Your task to perform on an android device: turn notification dots on Image 0: 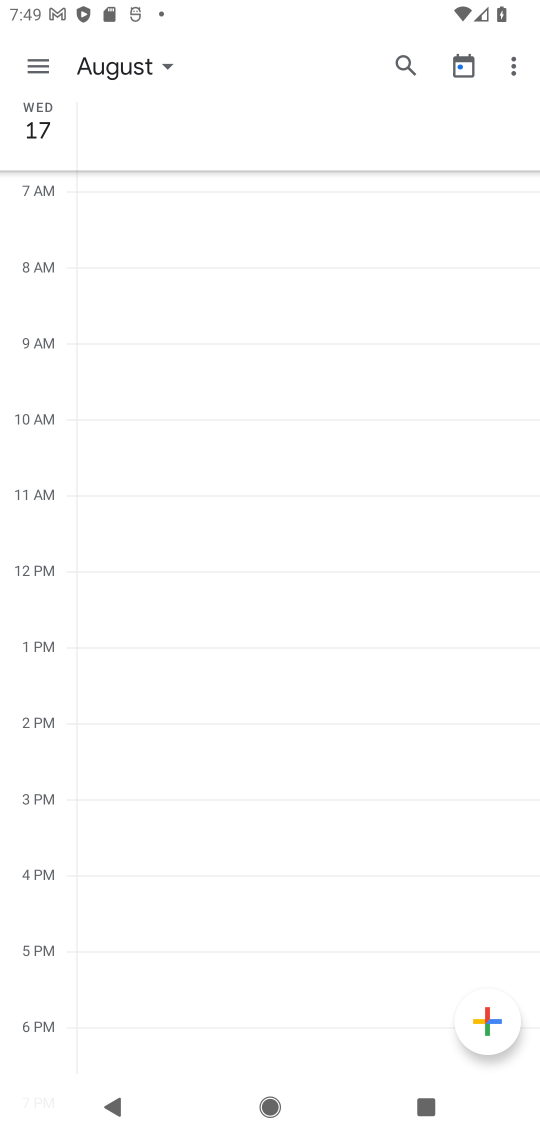
Step 0: press home button
Your task to perform on an android device: turn notification dots on Image 1: 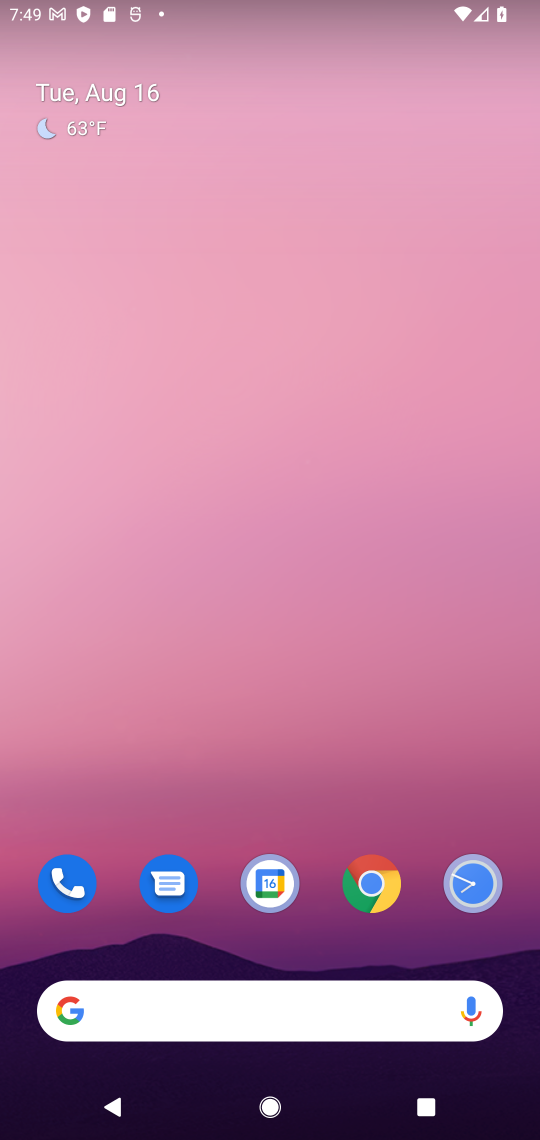
Step 1: drag from (428, 821) to (386, 147)
Your task to perform on an android device: turn notification dots on Image 2: 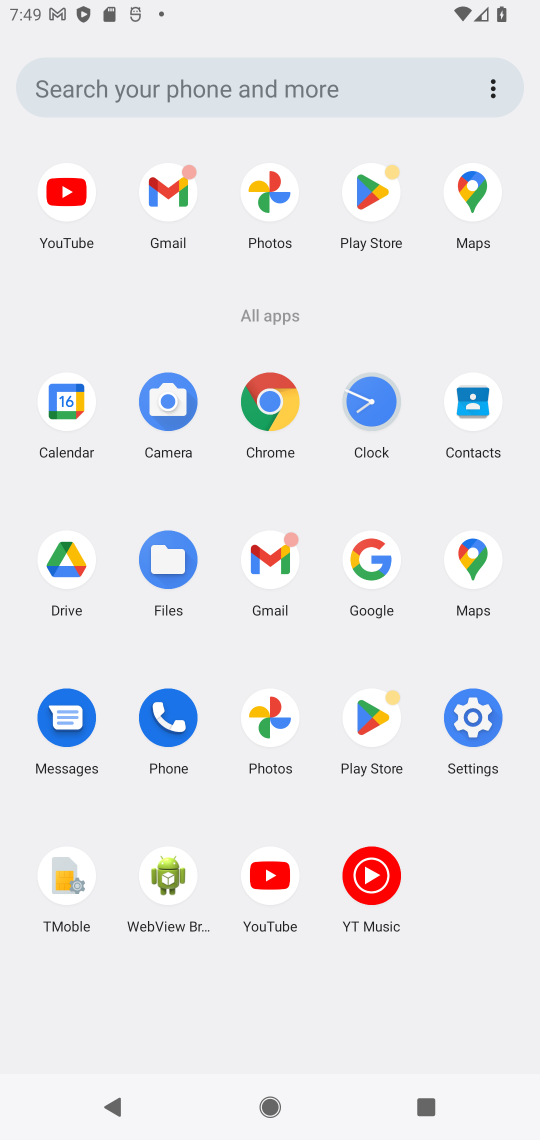
Step 2: click (492, 722)
Your task to perform on an android device: turn notification dots on Image 3: 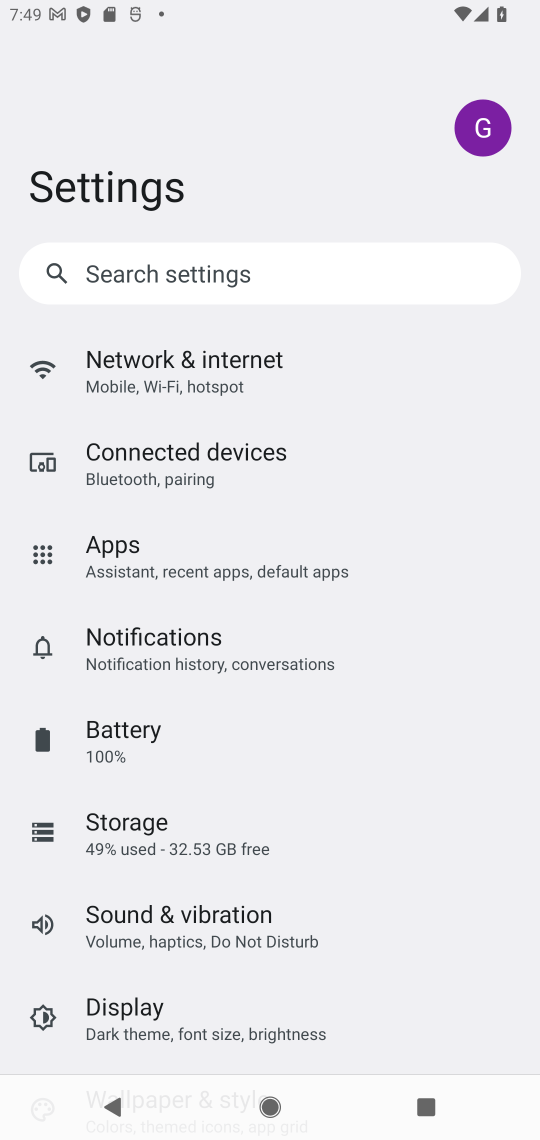
Step 3: click (221, 626)
Your task to perform on an android device: turn notification dots on Image 4: 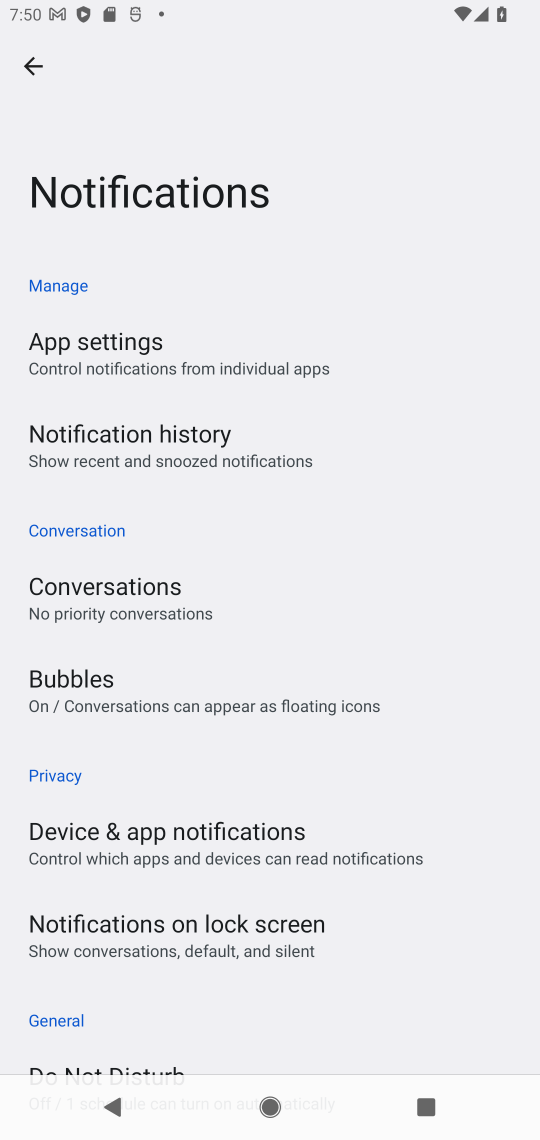
Step 4: task complete